Your task to perform on an android device: What's on my calendar today? Image 0: 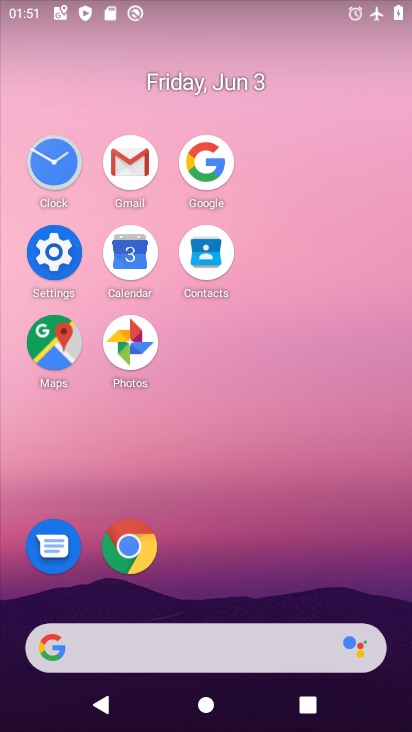
Step 0: click (139, 233)
Your task to perform on an android device: What's on my calendar today? Image 1: 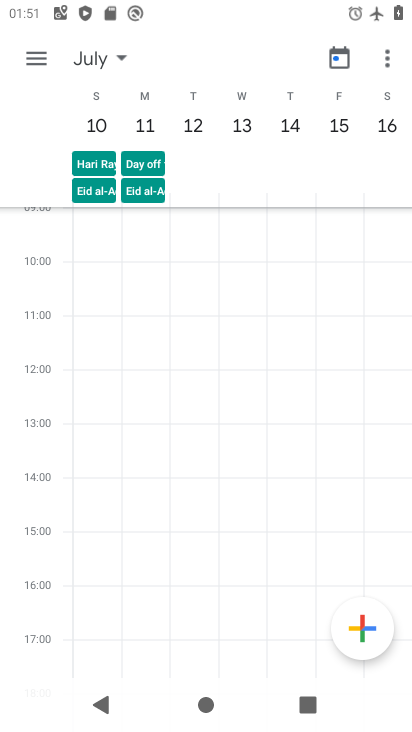
Step 1: drag from (99, 121) to (404, 102)
Your task to perform on an android device: What's on my calendar today? Image 2: 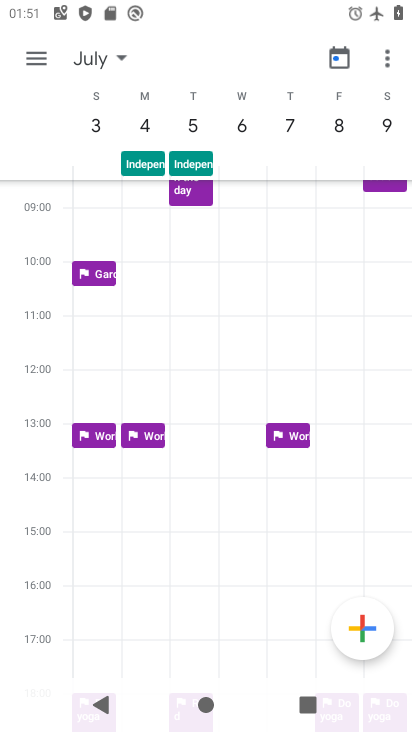
Step 2: click (131, 41)
Your task to perform on an android device: What's on my calendar today? Image 3: 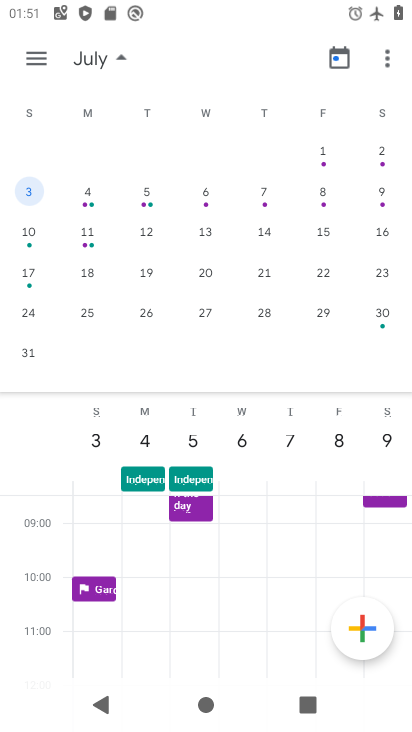
Step 3: drag from (78, 253) to (401, 202)
Your task to perform on an android device: What's on my calendar today? Image 4: 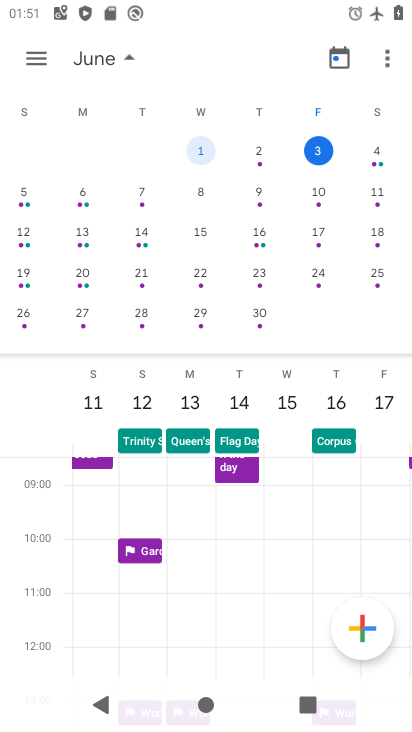
Step 4: click (217, 162)
Your task to perform on an android device: What's on my calendar today? Image 5: 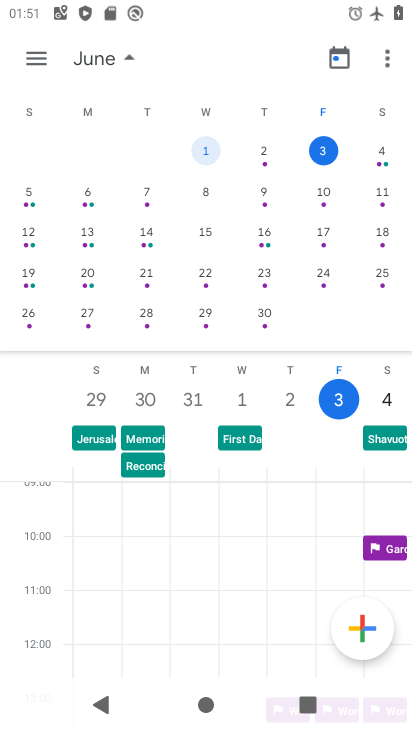
Step 5: click (348, 391)
Your task to perform on an android device: What's on my calendar today? Image 6: 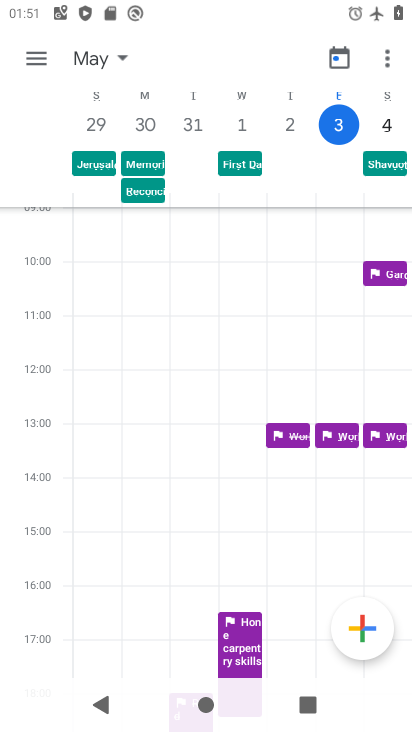
Step 6: click (347, 357)
Your task to perform on an android device: What's on my calendar today? Image 7: 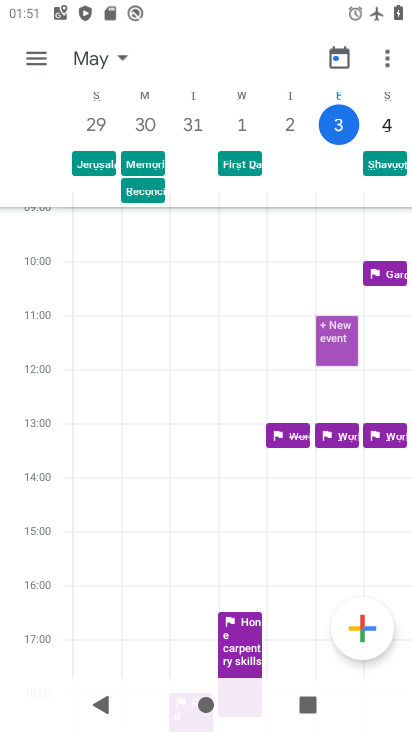
Step 7: task complete